Your task to perform on an android device: turn on sleep mode Image 0: 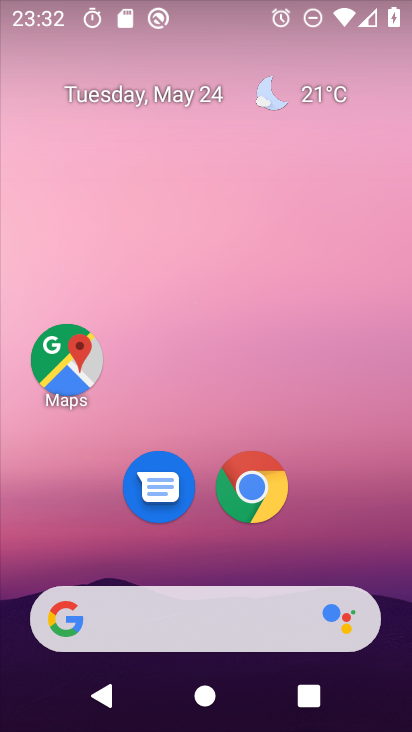
Step 0: drag from (353, 573) to (355, 0)
Your task to perform on an android device: turn on sleep mode Image 1: 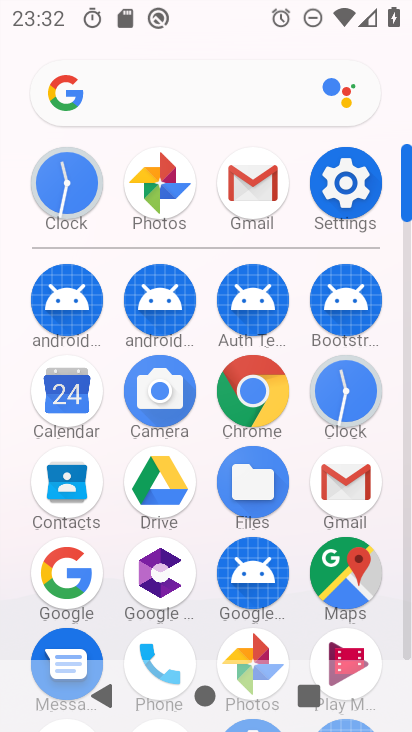
Step 1: click (350, 177)
Your task to perform on an android device: turn on sleep mode Image 2: 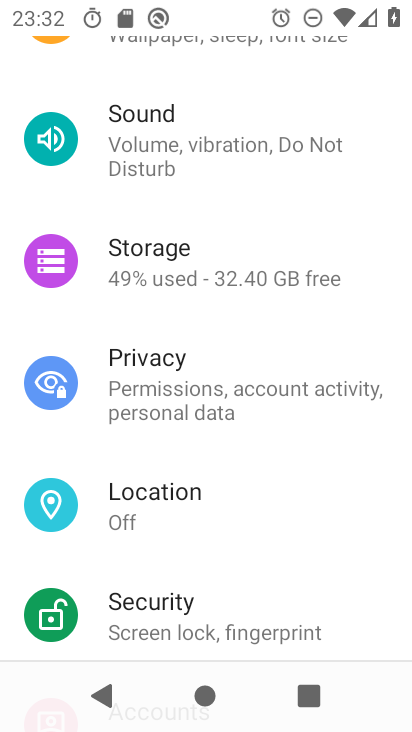
Step 2: drag from (280, 235) to (293, 526)
Your task to perform on an android device: turn on sleep mode Image 3: 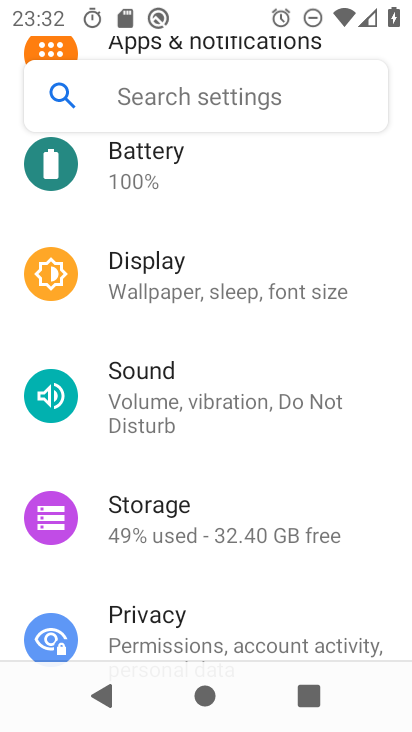
Step 3: click (167, 288)
Your task to perform on an android device: turn on sleep mode Image 4: 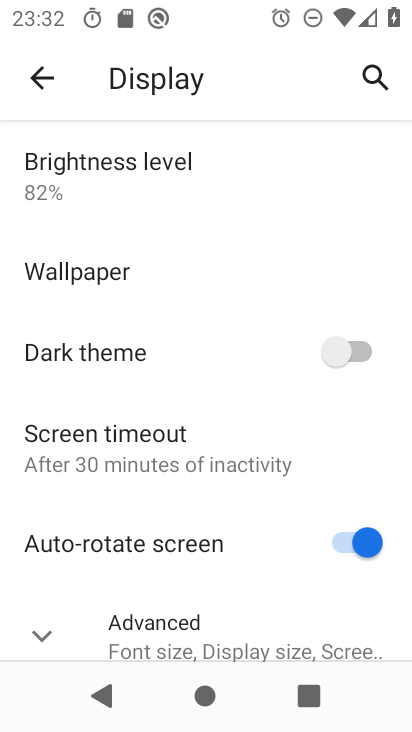
Step 4: click (39, 645)
Your task to perform on an android device: turn on sleep mode Image 5: 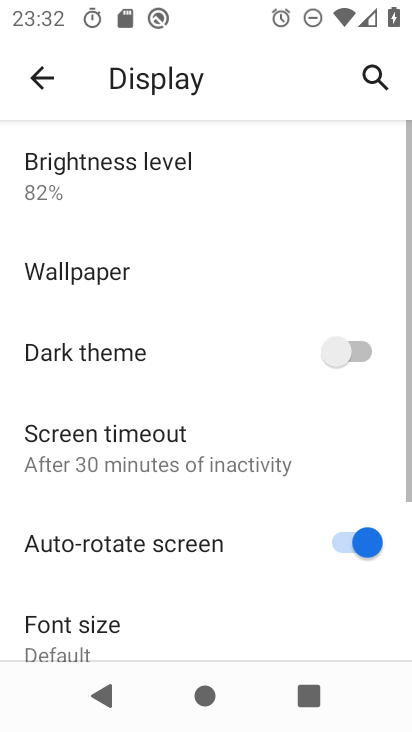
Step 5: task complete